Your task to perform on an android device: Turn off the flashlight Image 0: 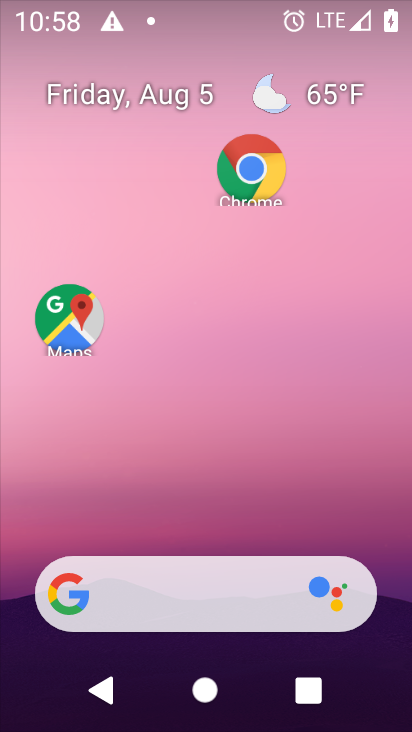
Step 0: drag from (250, 537) to (250, 136)
Your task to perform on an android device: Turn off the flashlight Image 1: 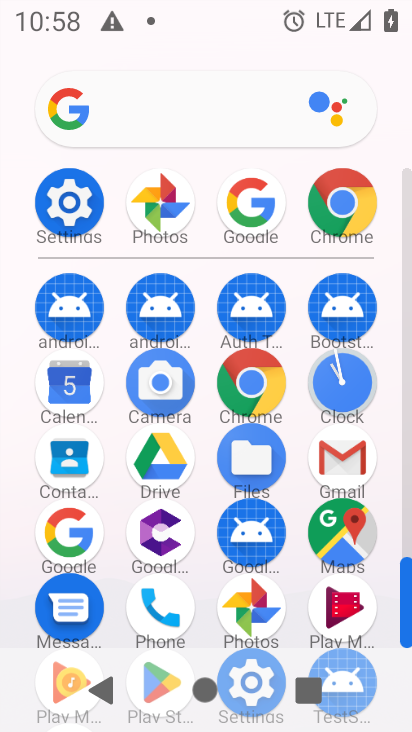
Step 1: click (50, 208)
Your task to perform on an android device: Turn off the flashlight Image 2: 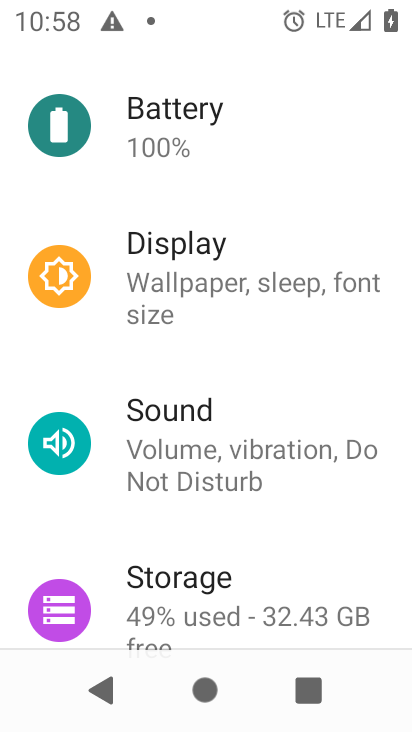
Step 2: task complete